Your task to perform on an android device: find snoozed emails in the gmail app Image 0: 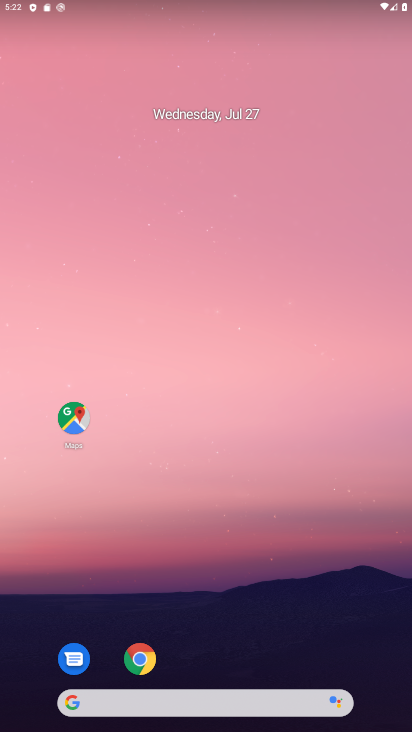
Step 0: drag from (267, 591) to (239, 80)
Your task to perform on an android device: find snoozed emails in the gmail app Image 1: 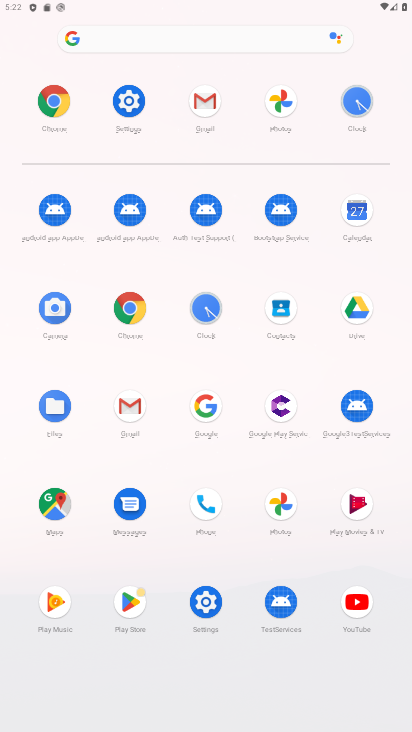
Step 1: click (126, 403)
Your task to perform on an android device: find snoozed emails in the gmail app Image 2: 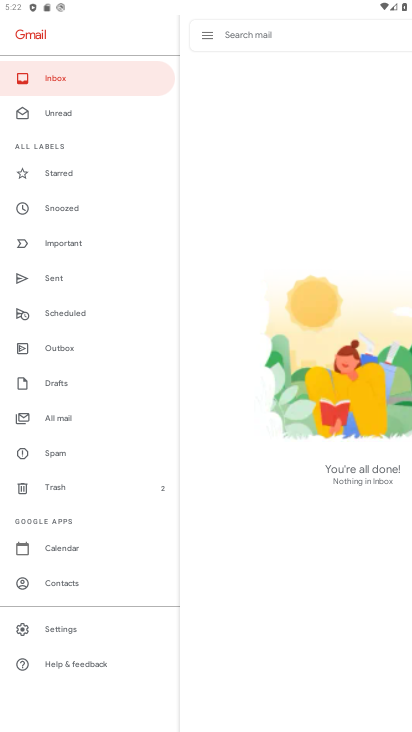
Step 2: click (61, 212)
Your task to perform on an android device: find snoozed emails in the gmail app Image 3: 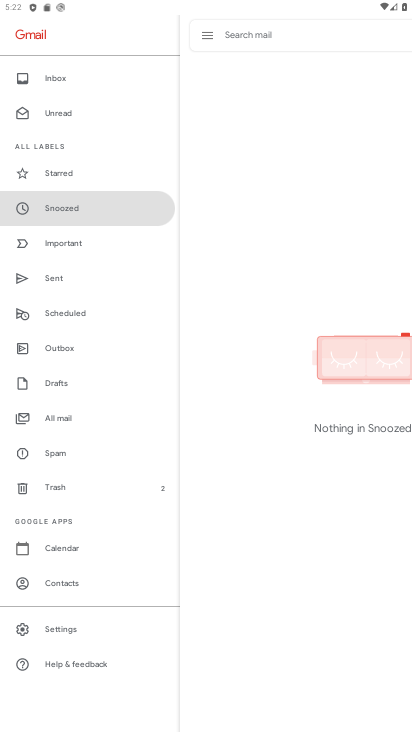
Step 3: task complete